Your task to perform on an android device: toggle pop-ups in chrome Image 0: 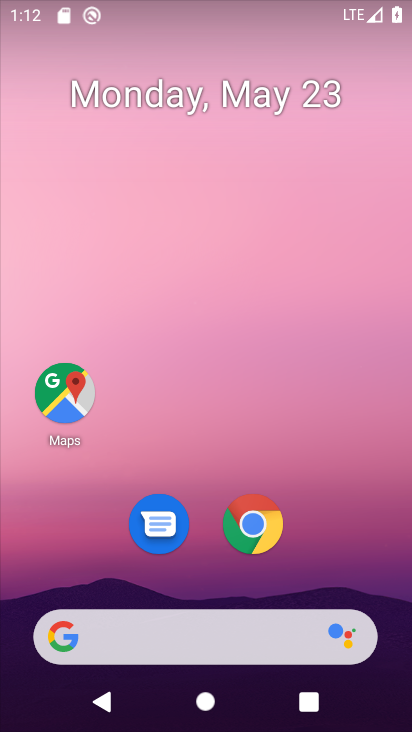
Step 0: drag from (243, 430) to (235, 24)
Your task to perform on an android device: toggle pop-ups in chrome Image 1: 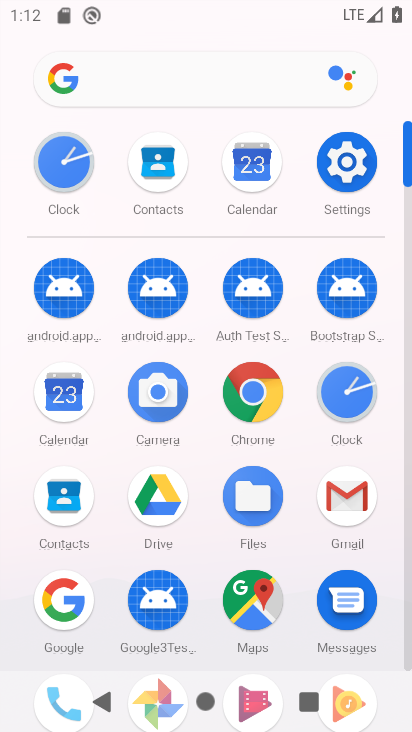
Step 1: click (261, 388)
Your task to perform on an android device: toggle pop-ups in chrome Image 2: 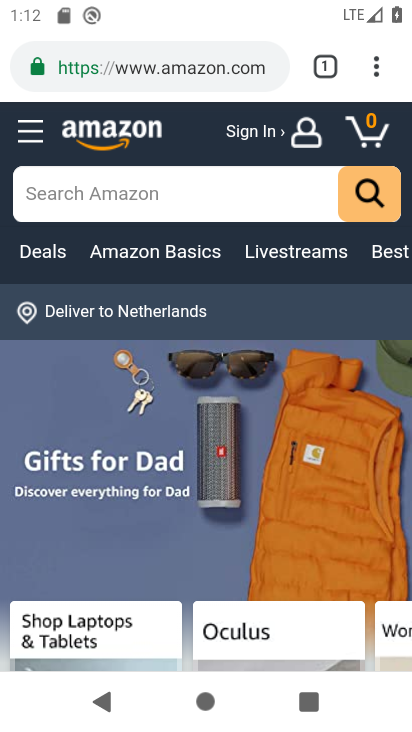
Step 2: click (372, 70)
Your task to perform on an android device: toggle pop-ups in chrome Image 3: 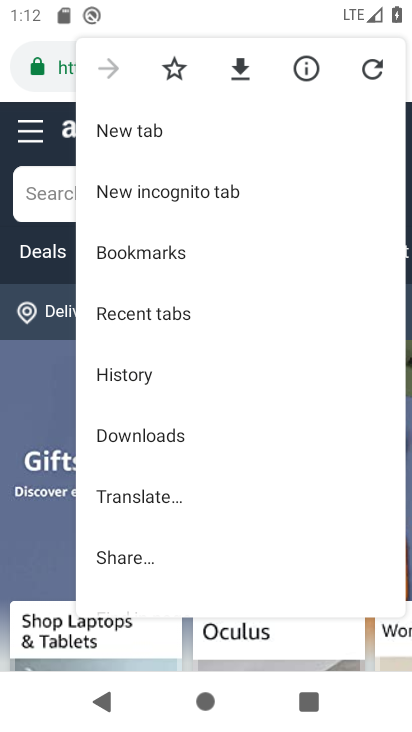
Step 3: drag from (300, 397) to (300, 120)
Your task to perform on an android device: toggle pop-ups in chrome Image 4: 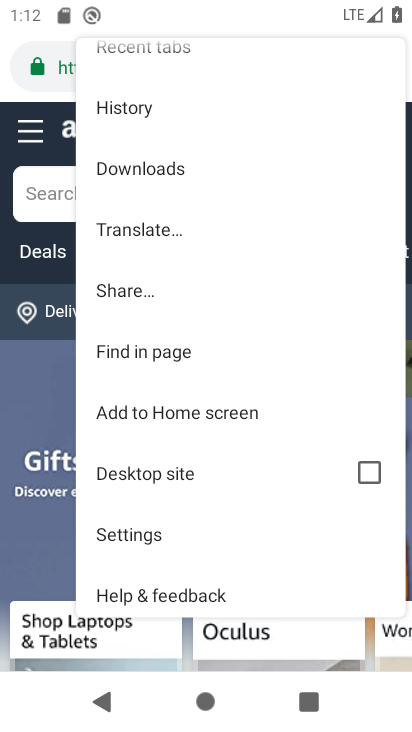
Step 4: click (167, 534)
Your task to perform on an android device: toggle pop-ups in chrome Image 5: 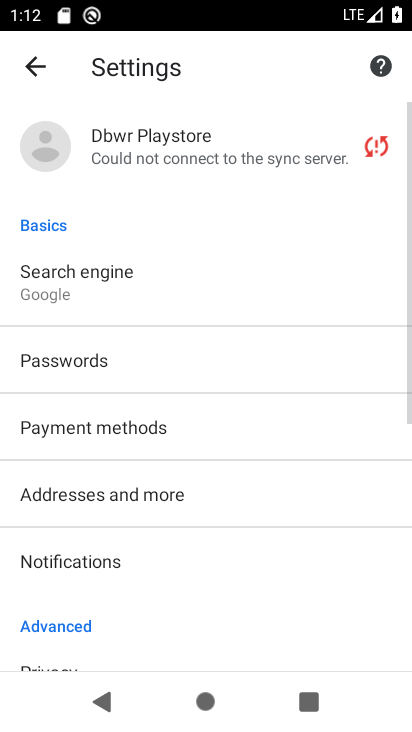
Step 5: drag from (268, 362) to (283, 182)
Your task to perform on an android device: toggle pop-ups in chrome Image 6: 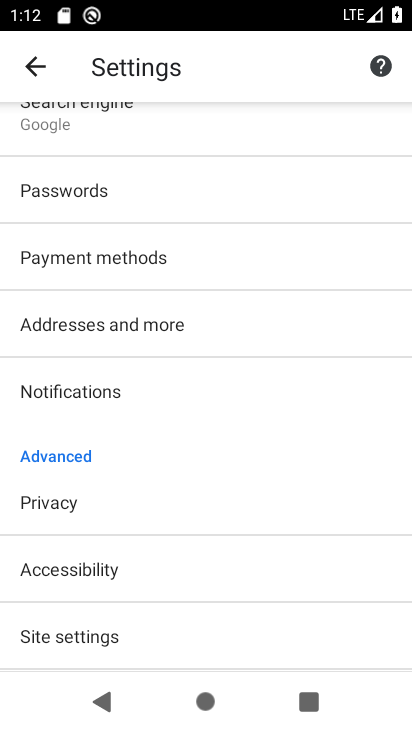
Step 6: click (200, 645)
Your task to perform on an android device: toggle pop-ups in chrome Image 7: 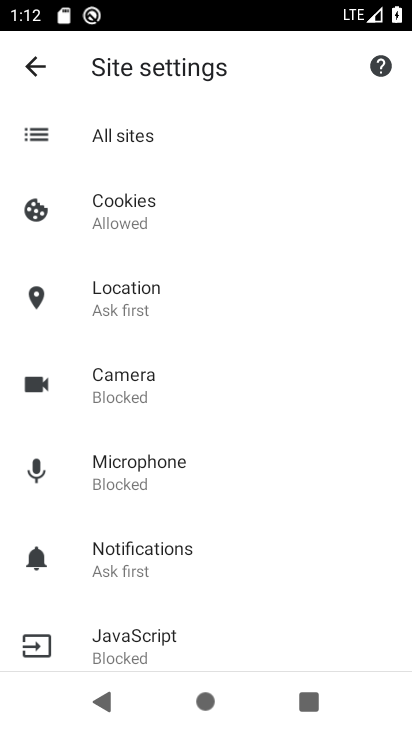
Step 7: drag from (256, 477) to (229, 152)
Your task to perform on an android device: toggle pop-ups in chrome Image 8: 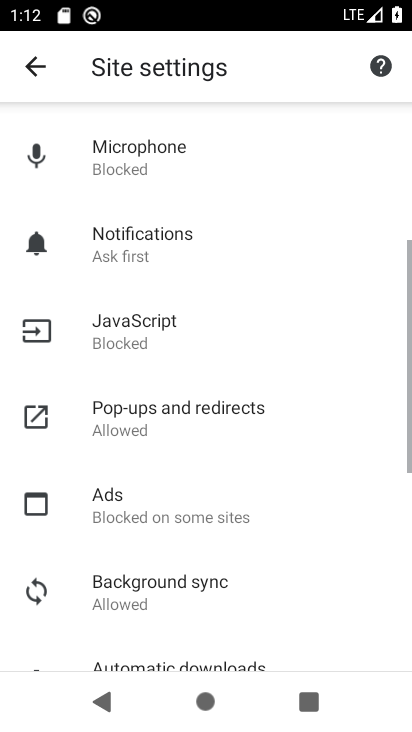
Step 8: click (221, 457)
Your task to perform on an android device: toggle pop-ups in chrome Image 9: 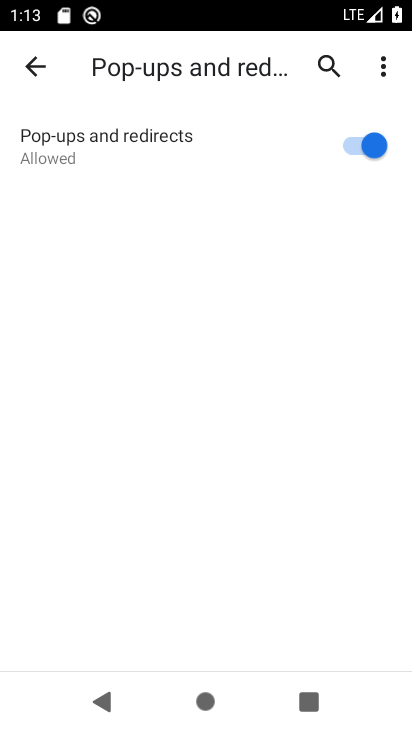
Step 9: click (355, 147)
Your task to perform on an android device: toggle pop-ups in chrome Image 10: 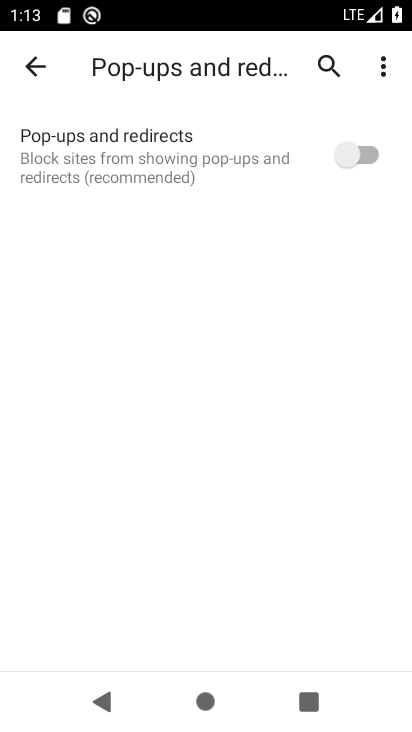
Step 10: task complete